Your task to perform on an android device: open app "Google Docs" Image 0: 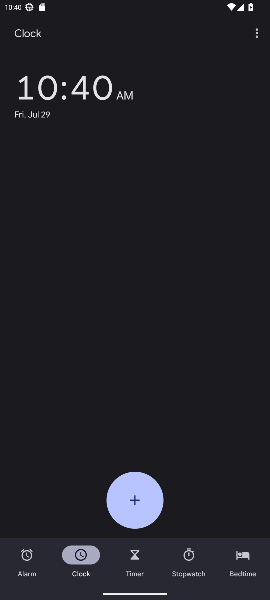
Step 0: press home button
Your task to perform on an android device: open app "Google Docs" Image 1: 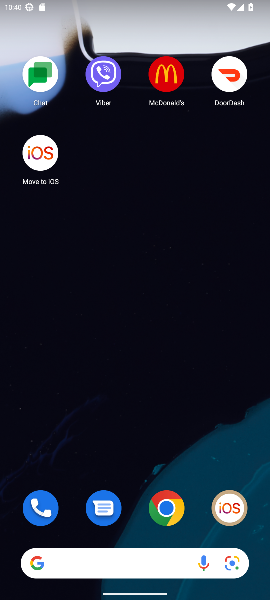
Step 1: drag from (143, 514) to (164, 97)
Your task to perform on an android device: open app "Google Docs" Image 2: 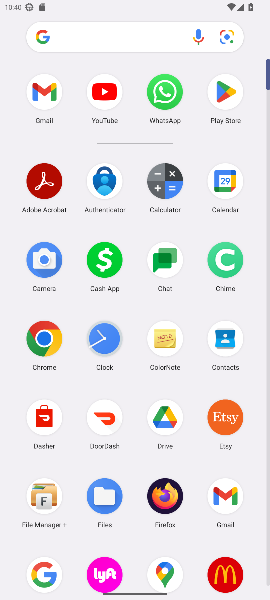
Step 2: click (227, 86)
Your task to perform on an android device: open app "Google Docs" Image 3: 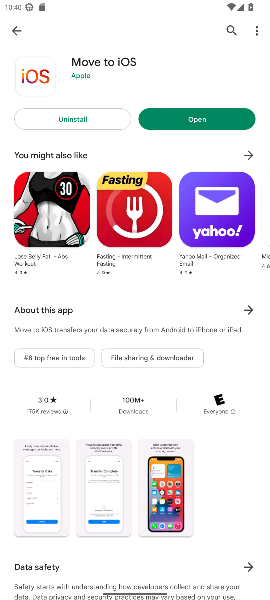
Step 3: click (231, 22)
Your task to perform on an android device: open app "Google Docs" Image 4: 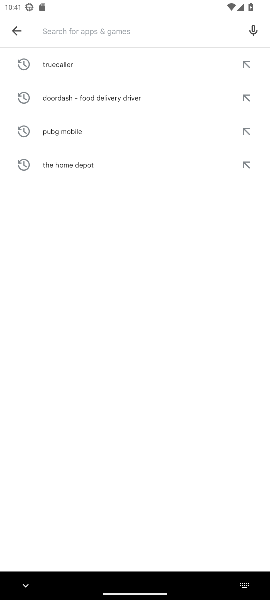
Step 4: type "googledocs"
Your task to perform on an android device: open app "Google Docs" Image 5: 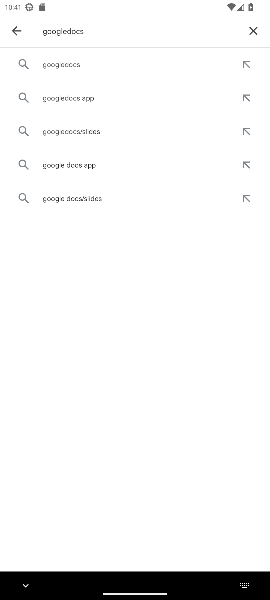
Step 5: click (67, 60)
Your task to perform on an android device: open app "Google Docs" Image 6: 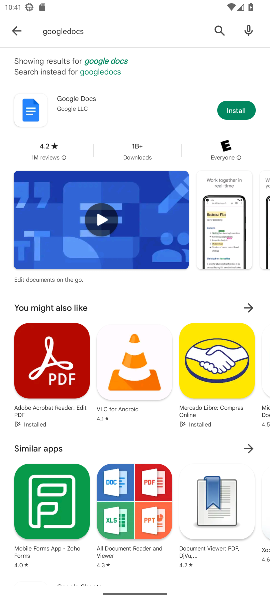
Step 6: task complete